Your task to perform on an android device: Open Chrome and go to the settings page Image 0: 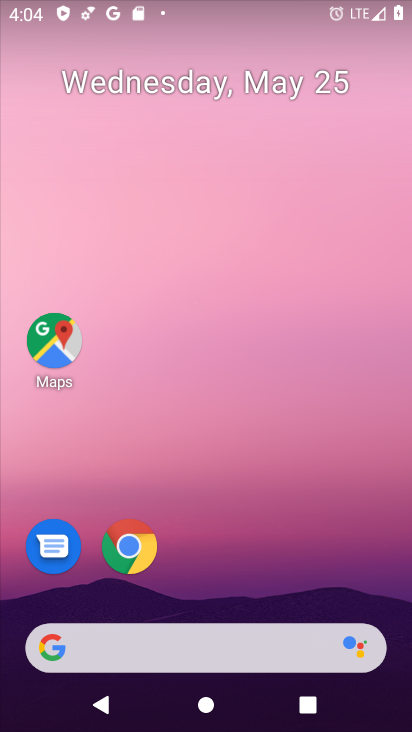
Step 0: click (129, 537)
Your task to perform on an android device: Open Chrome and go to the settings page Image 1: 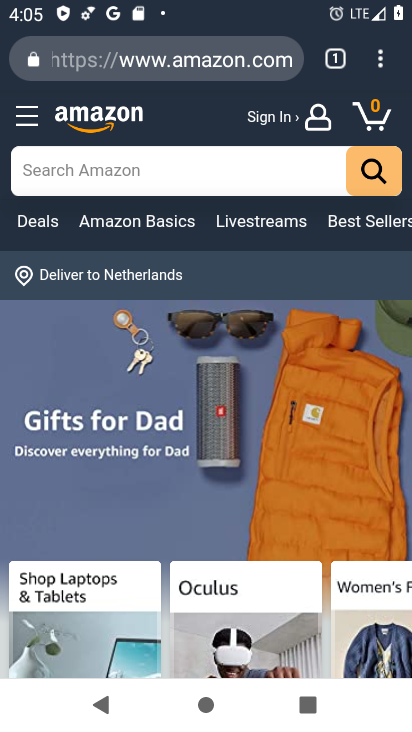
Step 1: click (383, 60)
Your task to perform on an android device: Open Chrome and go to the settings page Image 2: 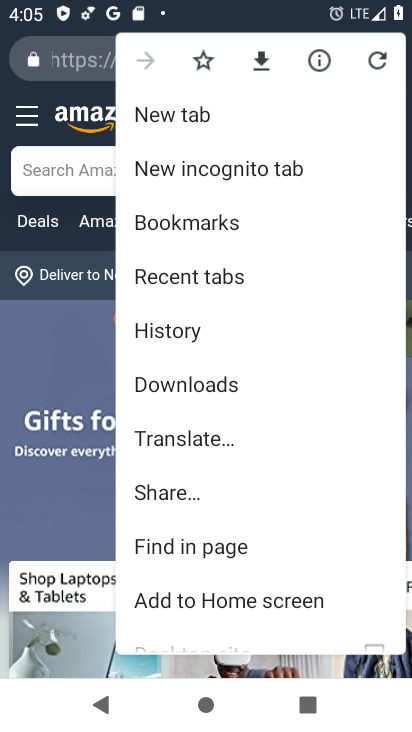
Step 2: drag from (207, 574) to (234, 239)
Your task to perform on an android device: Open Chrome and go to the settings page Image 3: 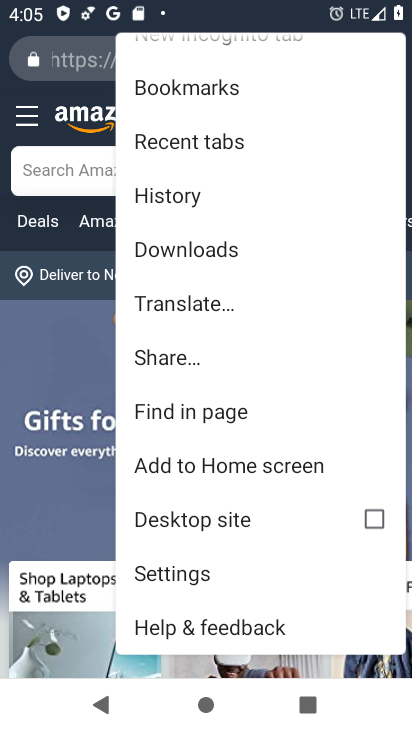
Step 3: click (189, 566)
Your task to perform on an android device: Open Chrome and go to the settings page Image 4: 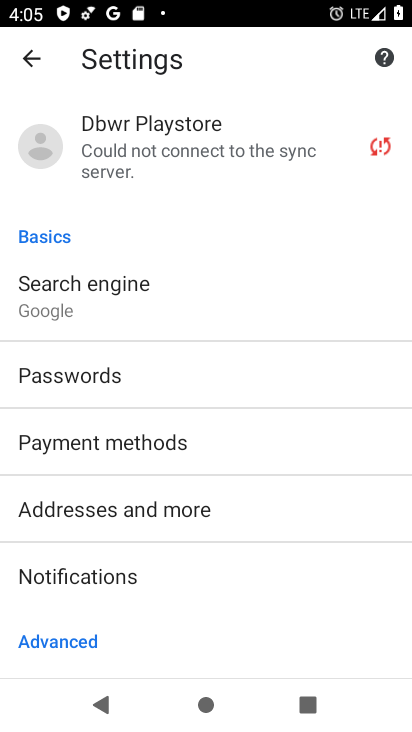
Step 4: task complete